Your task to perform on an android device: delete browsing data in the chrome app Image 0: 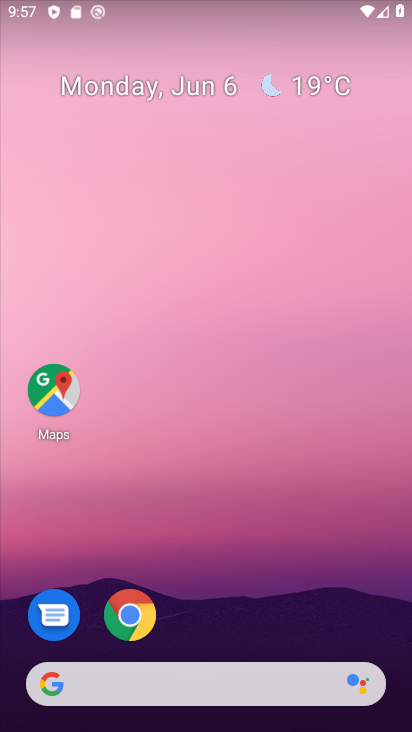
Step 0: task complete